Your task to perform on an android device: Open network settings Image 0: 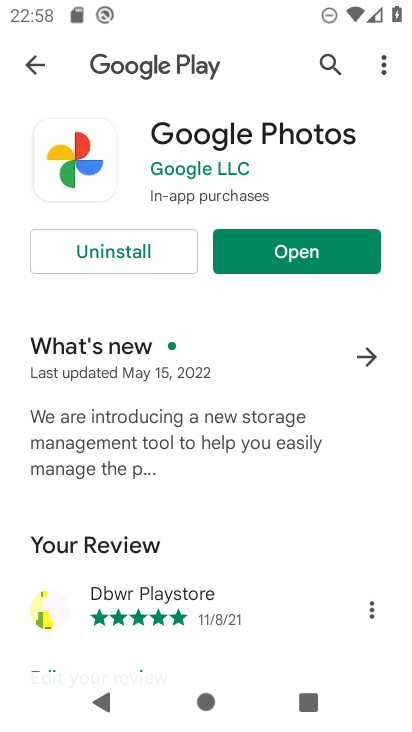
Step 0: press home button
Your task to perform on an android device: Open network settings Image 1: 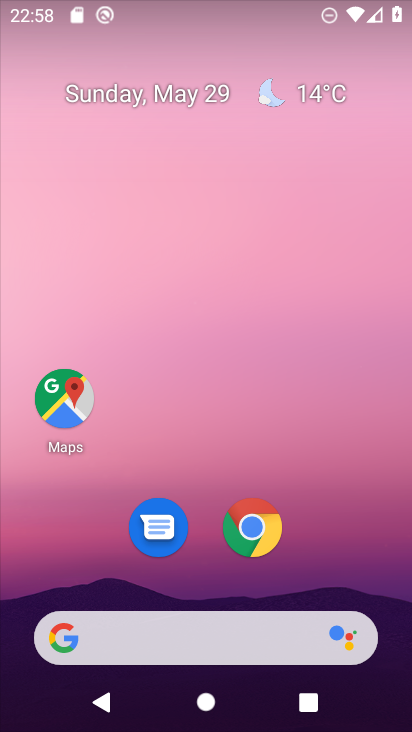
Step 1: drag from (202, 634) to (339, 96)
Your task to perform on an android device: Open network settings Image 2: 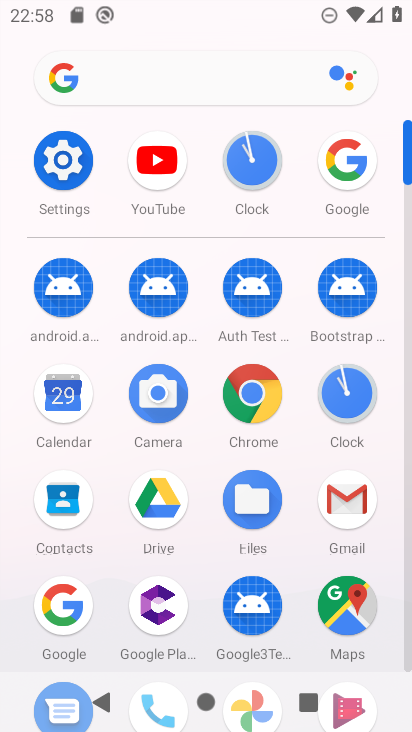
Step 2: click (53, 165)
Your task to perform on an android device: Open network settings Image 3: 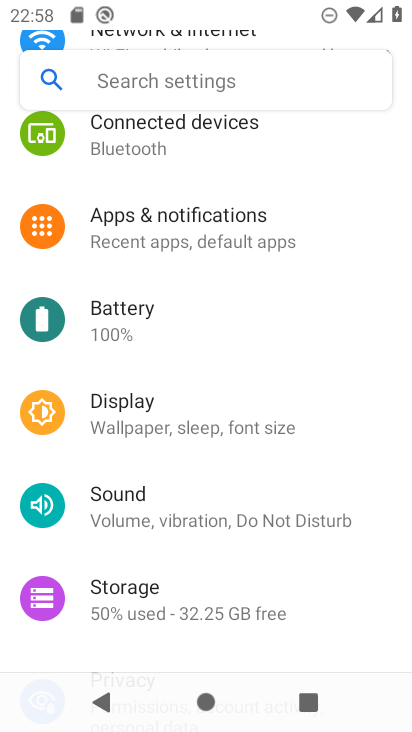
Step 3: drag from (294, 144) to (189, 640)
Your task to perform on an android device: Open network settings Image 4: 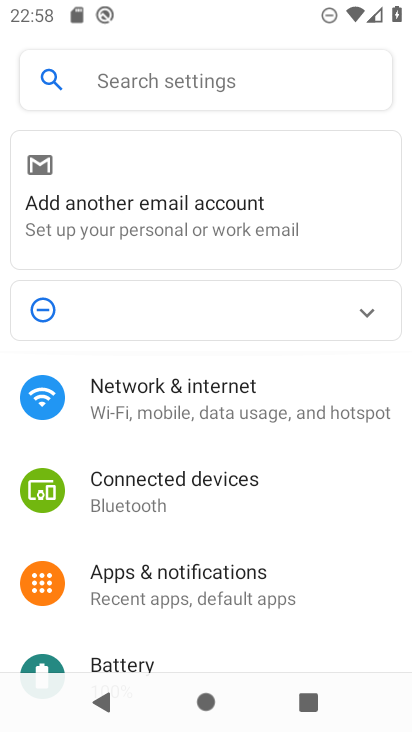
Step 4: click (230, 390)
Your task to perform on an android device: Open network settings Image 5: 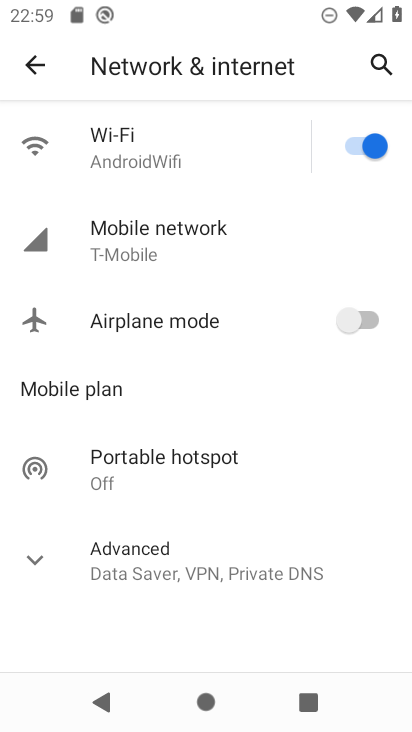
Step 5: task complete